Your task to perform on an android device: What's on my calendar today? Image 0: 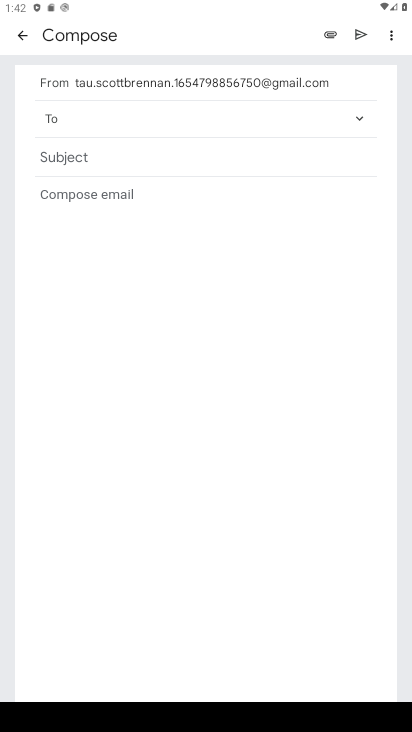
Step 0: task complete